Your task to perform on an android device: Open Yahoo.com Image 0: 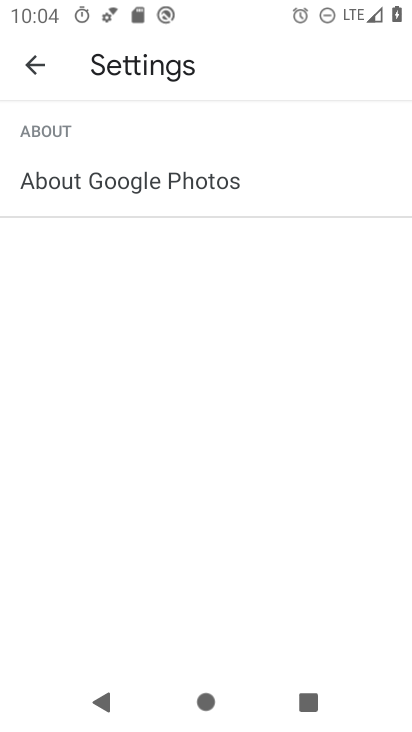
Step 0: press home button
Your task to perform on an android device: Open Yahoo.com Image 1: 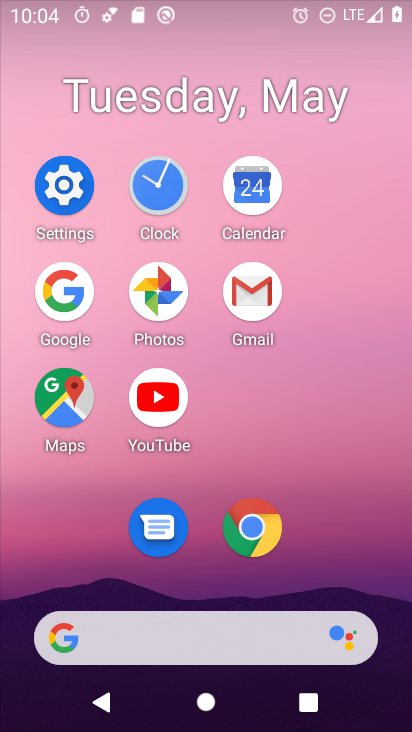
Step 1: click (234, 527)
Your task to perform on an android device: Open Yahoo.com Image 2: 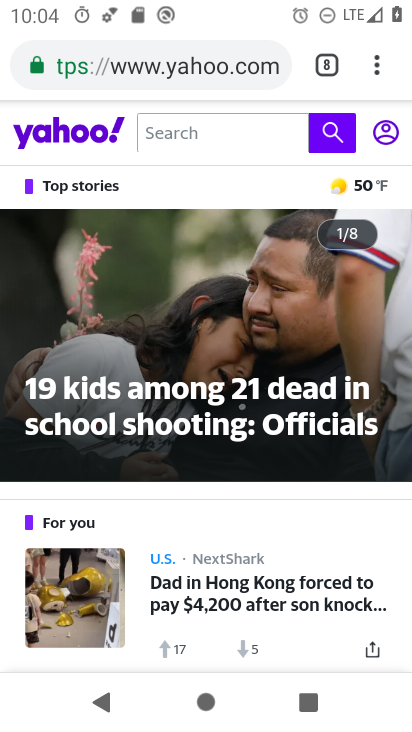
Step 2: task complete